Your task to perform on an android device: check battery use Image 0: 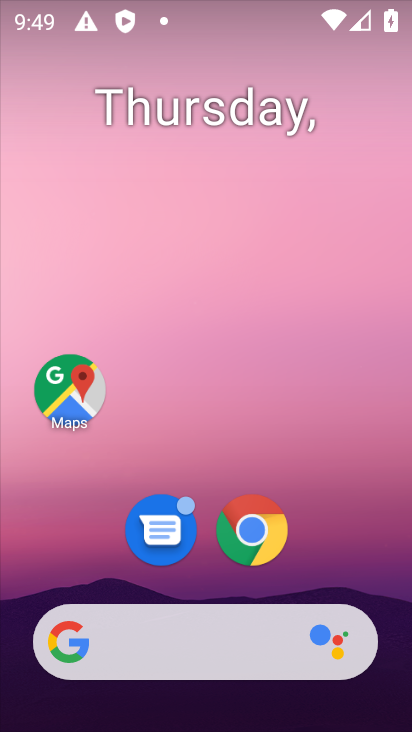
Step 0: press home button
Your task to perform on an android device: check battery use Image 1: 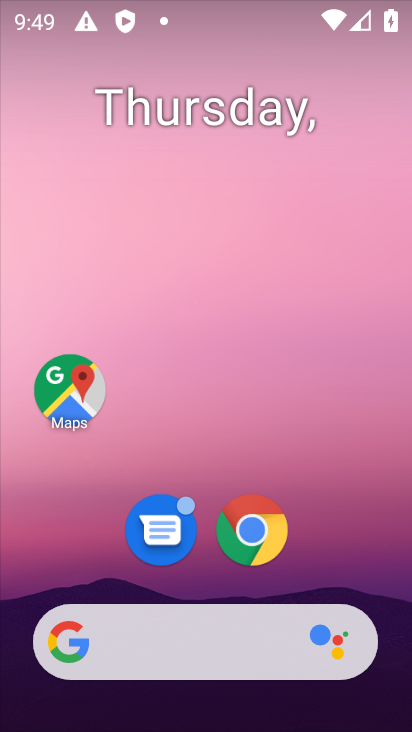
Step 1: drag from (365, 549) to (385, 76)
Your task to perform on an android device: check battery use Image 2: 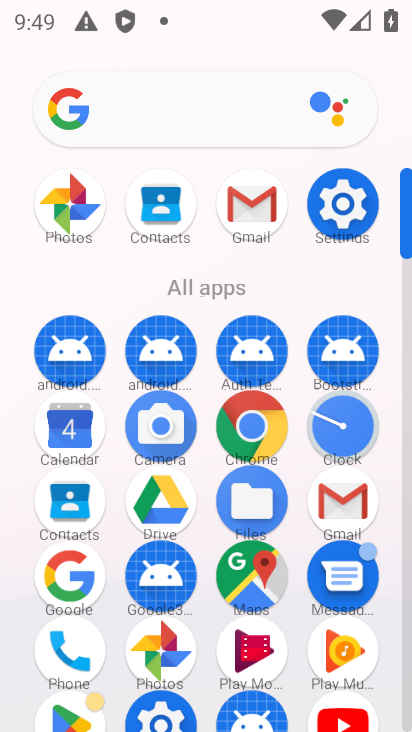
Step 2: click (362, 189)
Your task to perform on an android device: check battery use Image 3: 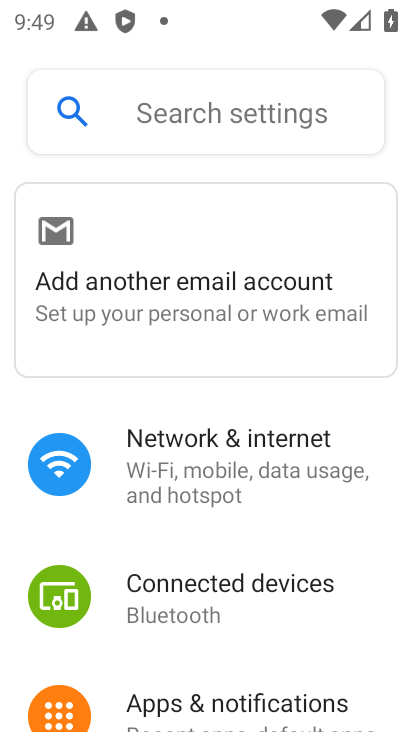
Step 3: drag from (165, 545) to (208, 215)
Your task to perform on an android device: check battery use Image 4: 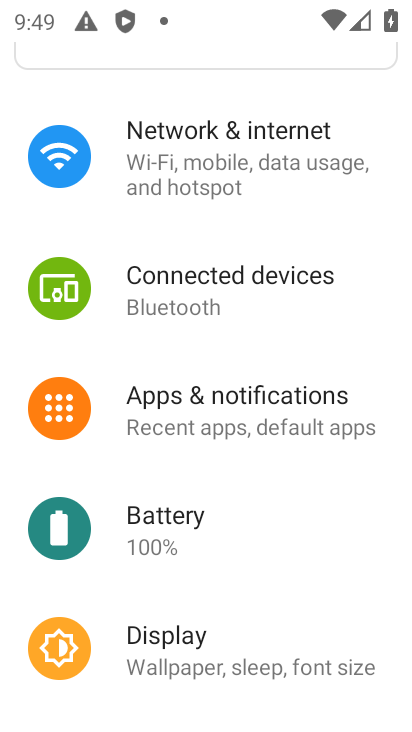
Step 4: click (175, 529)
Your task to perform on an android device: check battery use Image 5: 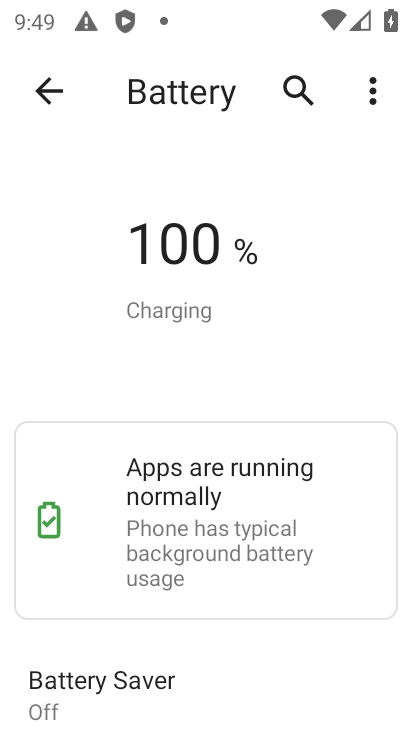
Step 5: task complete